Your task to perform on an android device: Do I have any events today? Image 0: 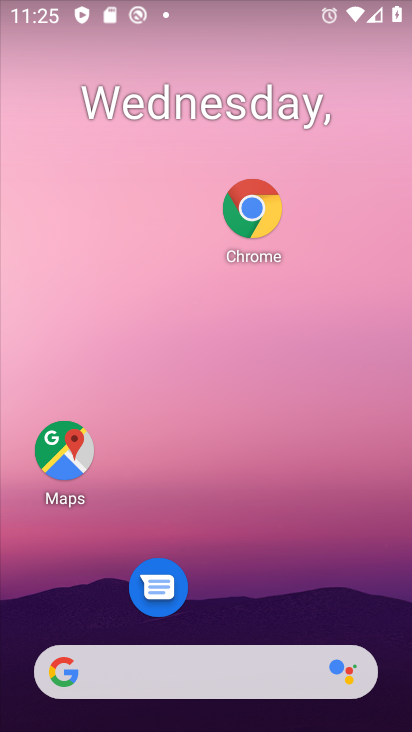
Step 0: drag from (226, 610) to (162, 5)
Your task to perform on an android device: Do I have any events today? Image 1: 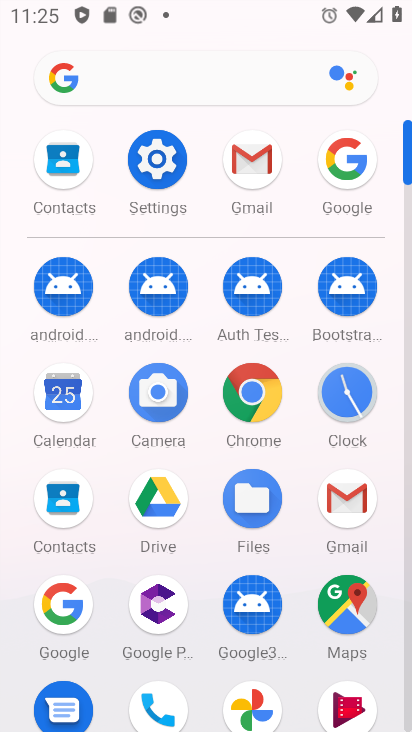
Step 1: click (67, 429)
Your task to perform on an android device: Do I have any events today? Image 2: 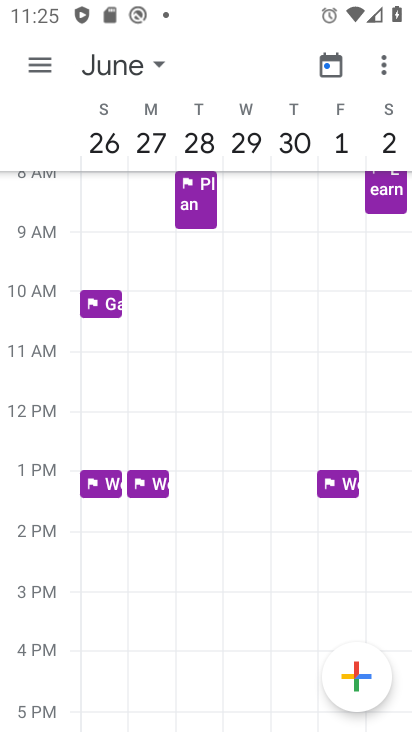
Step 2: click (131, 62)
Your task to perform on an android device: Do I have any events today? Image 3: 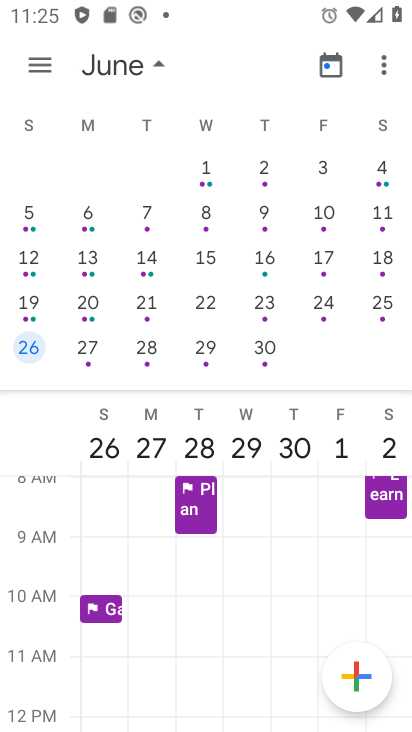
Step 3: drag from (176, 289) to (406, 306)
Your task to perform on an android device: Do I have any events today? Image 4: 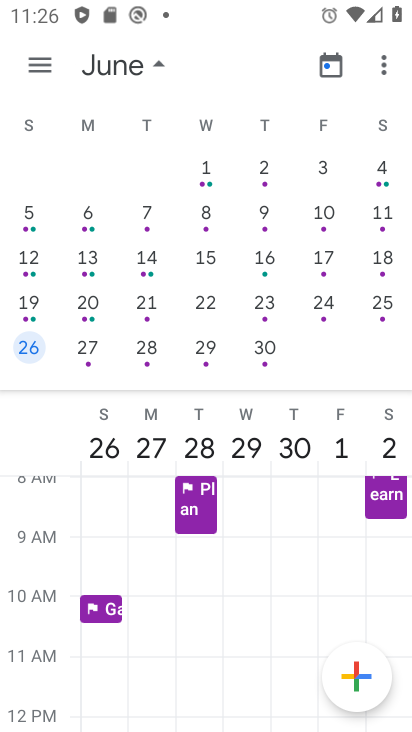
Step 4: drag from (50, 257) to (347, 225)
Your task to perform on an android device: Do I have any events today? Image 5: 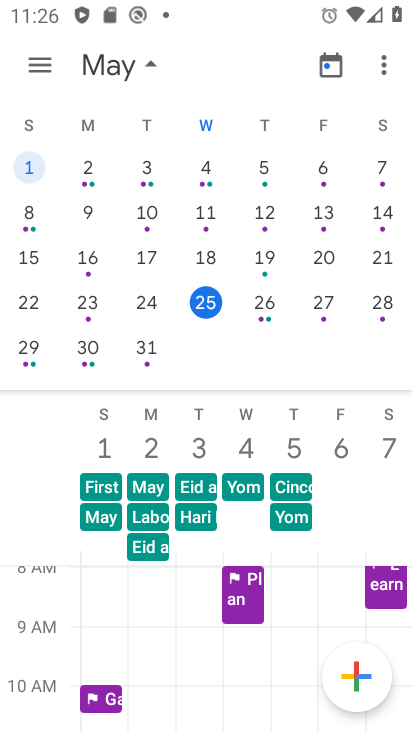
Step 5: click (36, 65)
Your task to perform on an android device: Do I have any events today? Image 6: 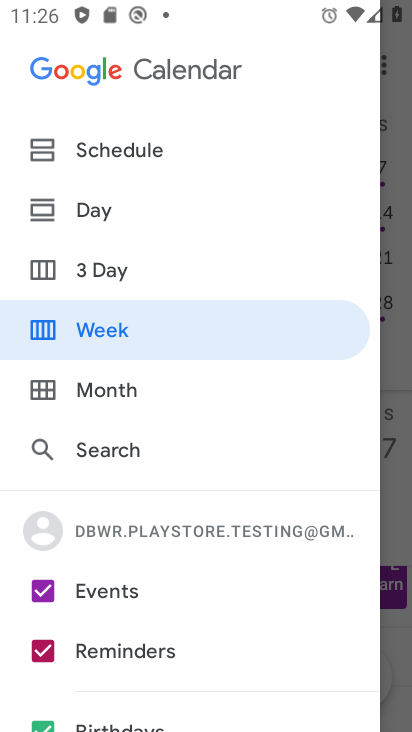
Step 6: click (114, 160)
Your task to perform on an android device: Do I have any events today? Image 7: 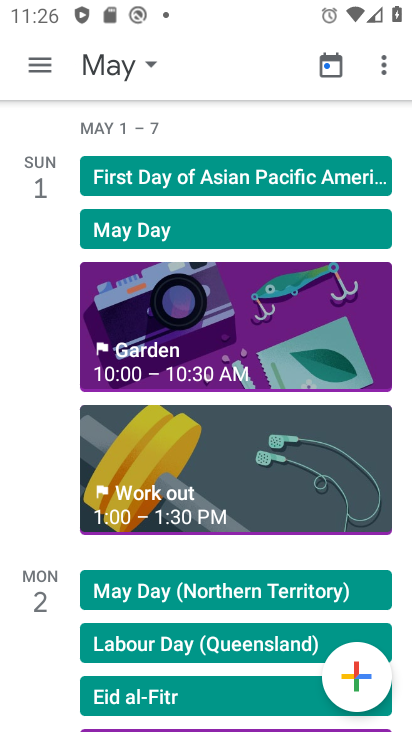
Step 7: click (115, 74)
Your task to perform on an android device: Do I have any events today? Image 8: 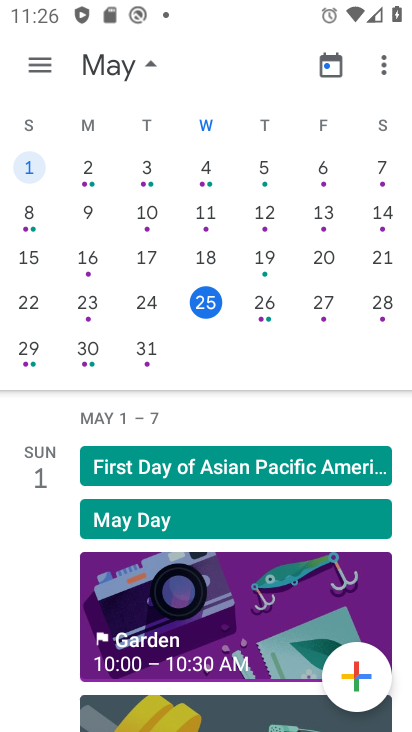
Step 8: click (205, 312)
Your task to perform on an android device: Do I have any events today? Image 9: 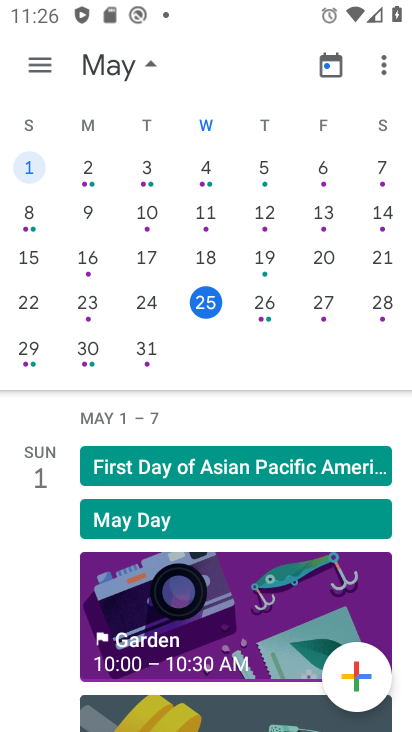
Step 9: click (207, 305)
Your task to perform on an android device: Do I have any events today? Image 10: 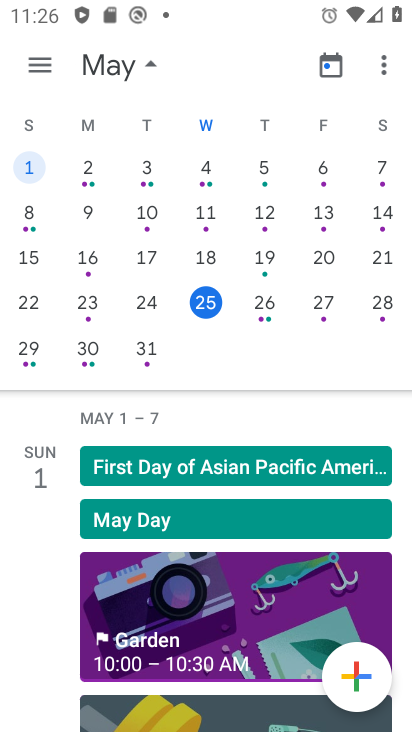
Step 10: click (208, 304)
Your task to perform on an android device: Do I have any events today? Image 11: 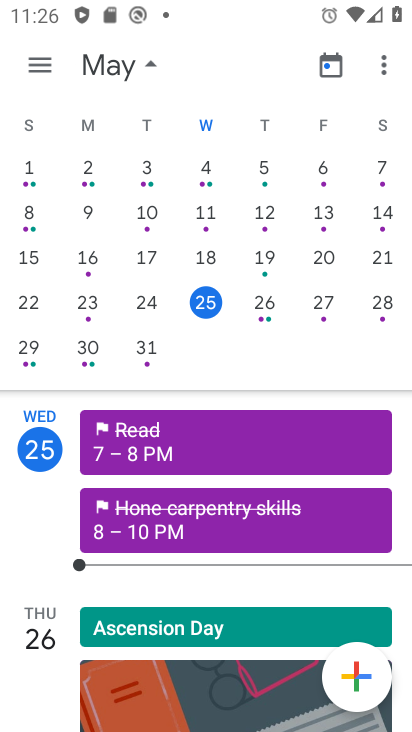
Step 11: task complete